Your task to perform on an android device: Open wifi settings Image 0: 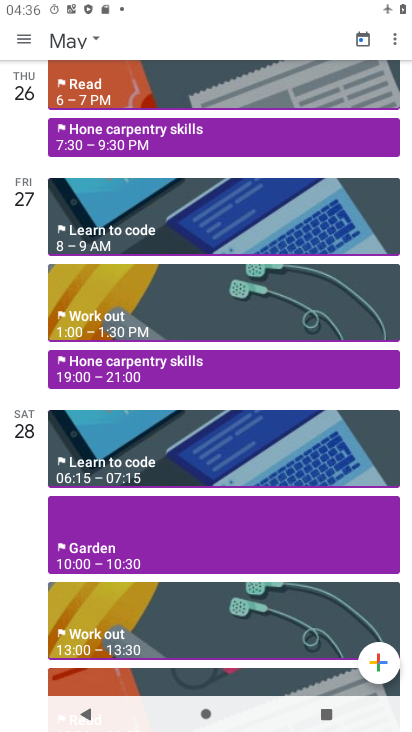
Step 0: press home button
Your task to perform on an android device: Open wifi settings Image 1: 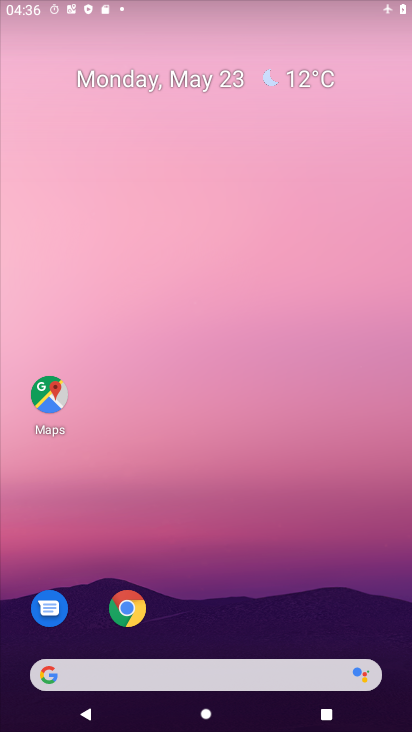
Step 1: drag from (283, 596) to (218, 114)
Your task to perform on an android device: Open wifi settings Image 2: 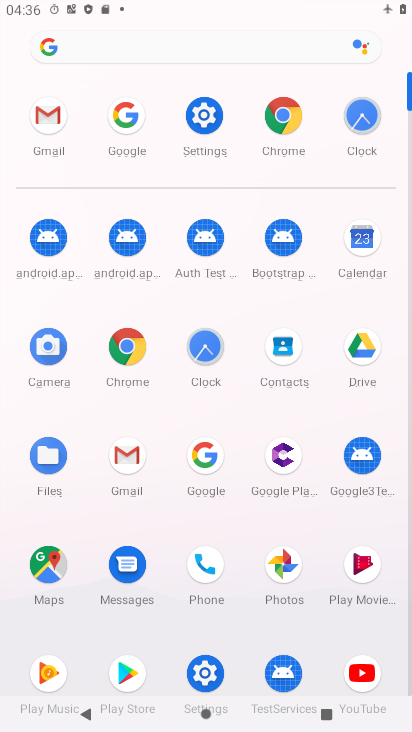
Step 2: click (191, 125)
Your task to perform on an android device: Open wifi settings Image 3: 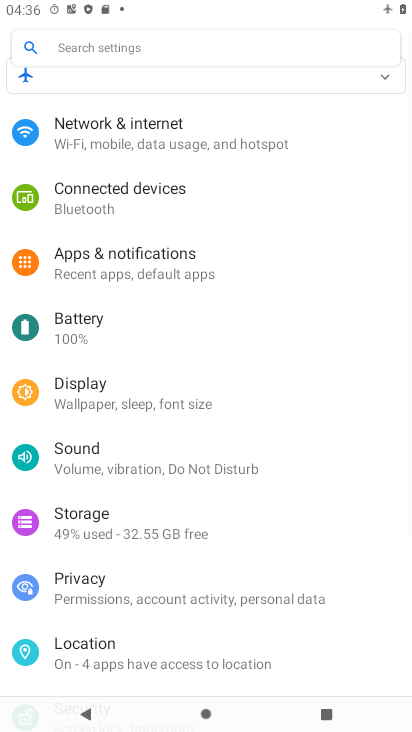
Step 3: click (195, 137)
Your task to perform on an android device: Open wifi settings Image 4: 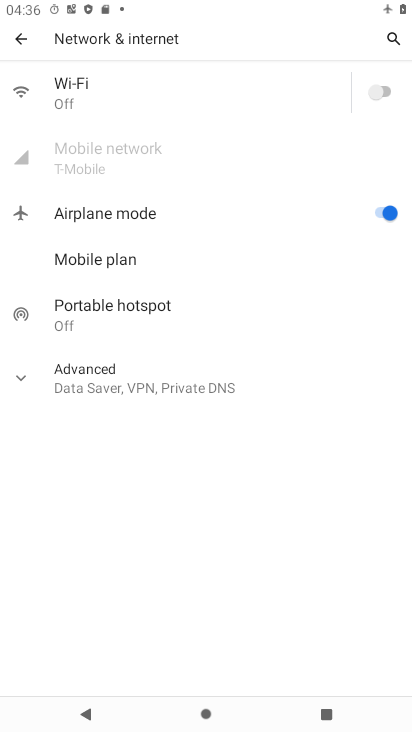
Step 4: click (102, 103)
Your task to perform on an android device: Open wifi settings Image 5: 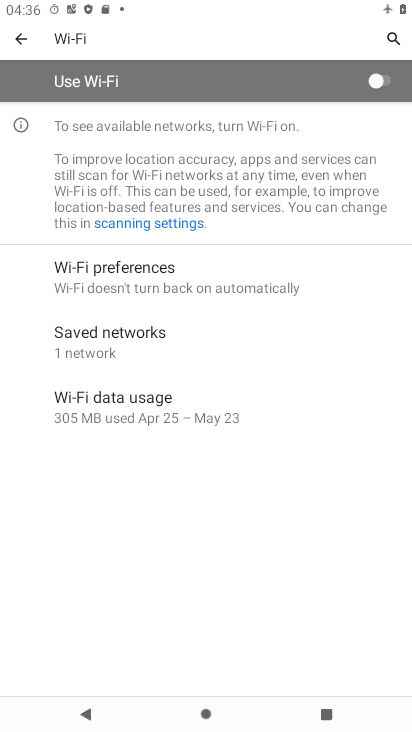
Step 5: task complete